Your task to perform on an android device: add a contact Image 0: 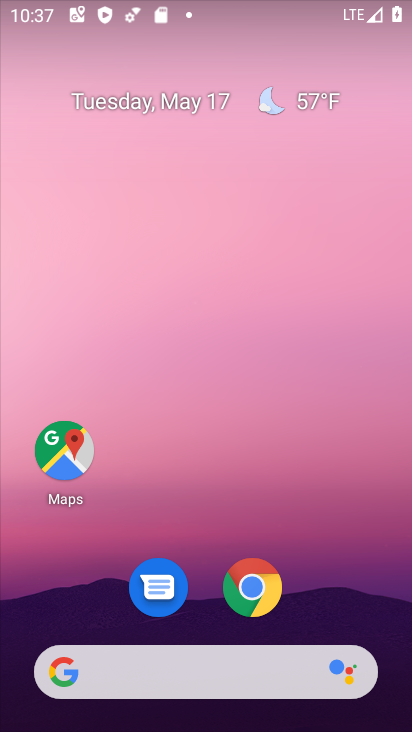
Step 0: drag from (384, 631) to (278, 153)
Your task to perform on an android device: add a contact Image 1: 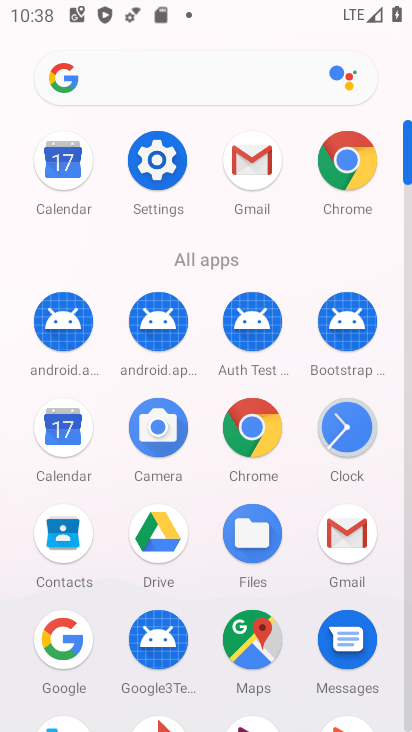
Step 1: click (80, 528)
Your task to perform on an android device: add a contact Image 2: 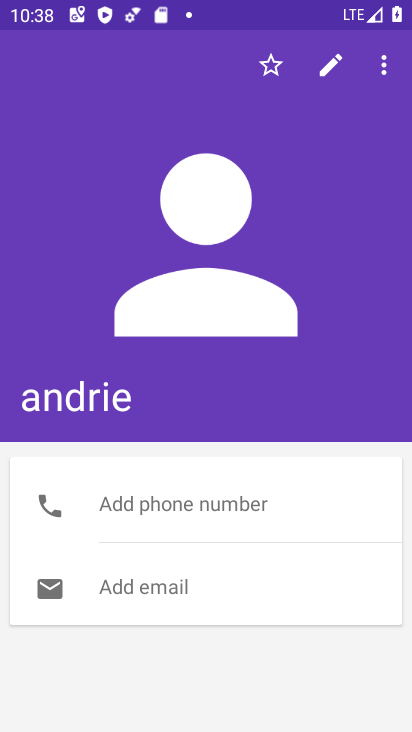
Step 2: press back button
Your task to perform on an android device: add a contact Image 3: 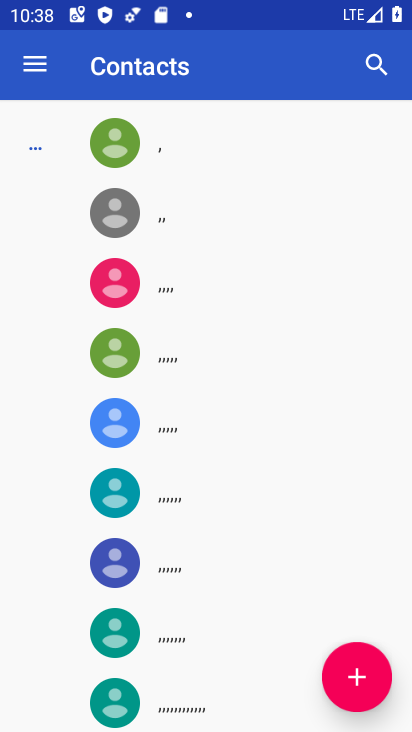
Step 3: click (359, 667)
Your task to perform on an android device: add a contact Image 4: 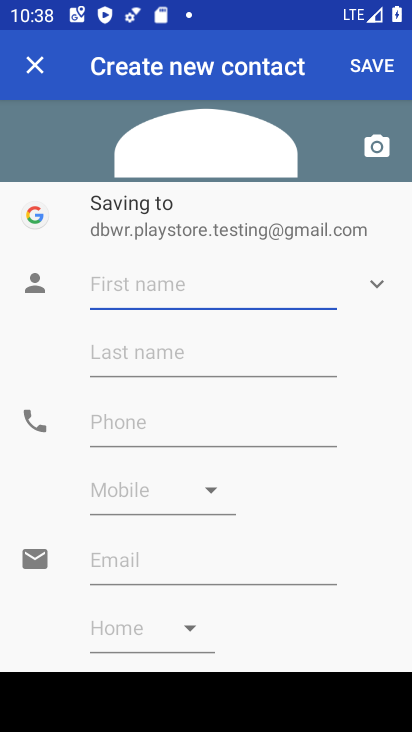
Step 4: type "wasim"
Your task to perform on an android device: add a contact Image 5: 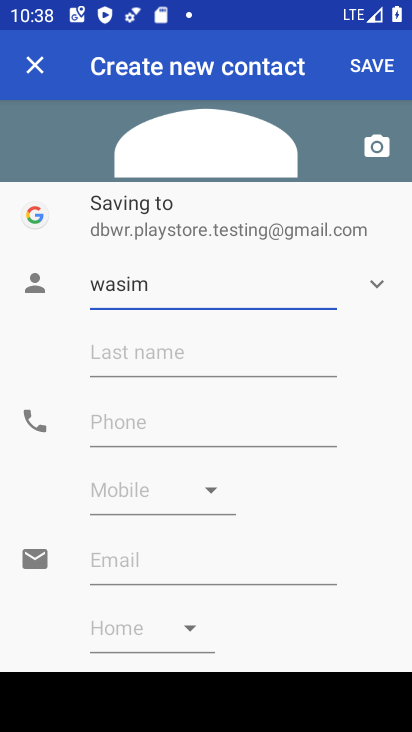
Step 5: click (377, 62)
Your task to perform on an android device: add a contact Image 6: 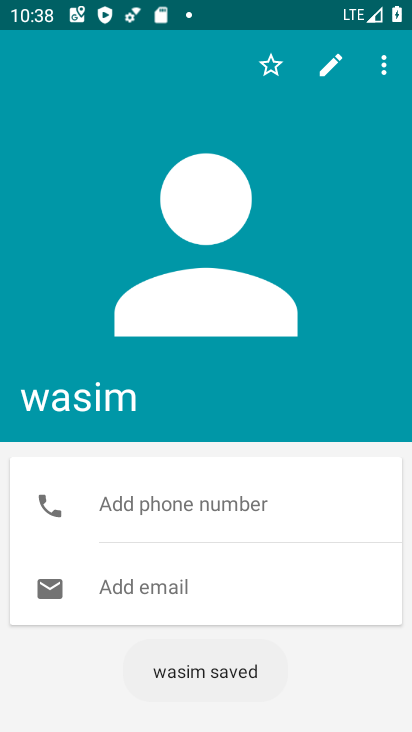
Step 6: task complete